Your task to perform on an android device: toggle airplane mode Image 0: 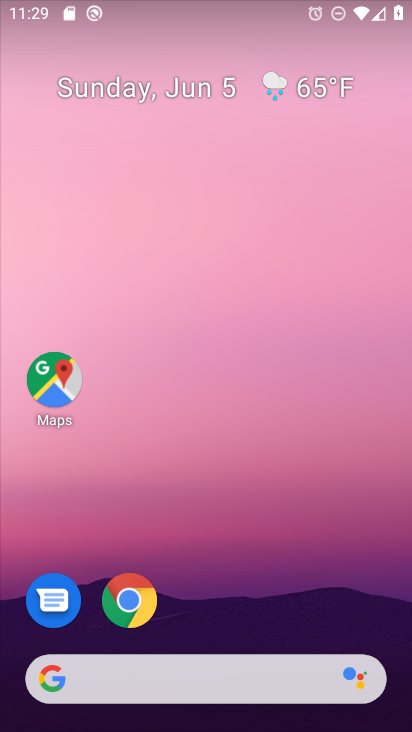
Step 0: drag from (194, 6) to (299, 503)
Your task to perform on an android device: toggle airplane mode Image 1: 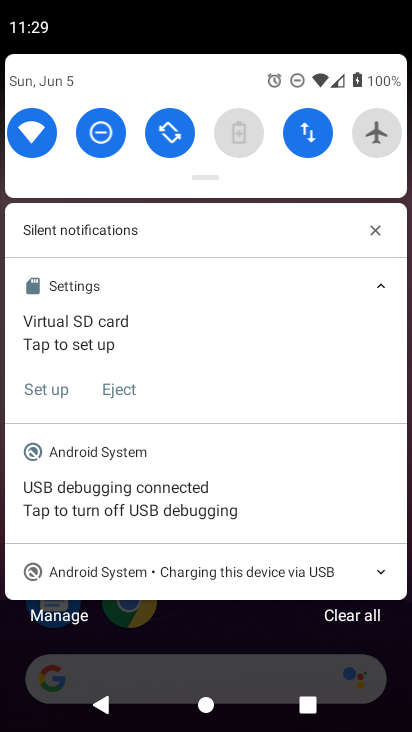
Step 1: click (371, 126)
Your task to perform on an android device: toggle airplane mode Image 2: 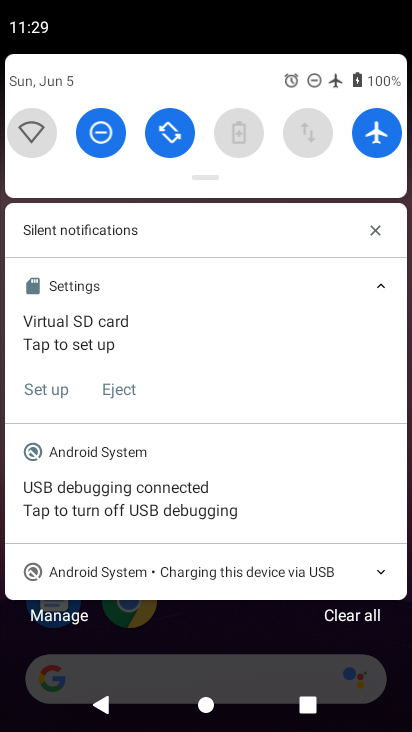
Step 2: task complete